Your task to perform on an android device: Search for pizza restaurants on Maps Image 0: 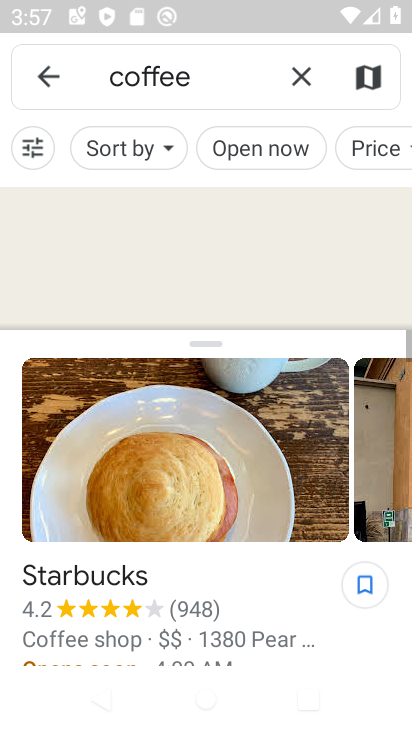
Step 0: press home button
Your task to perform on an android device: Search for pizza restaurants on Maps Image 1: 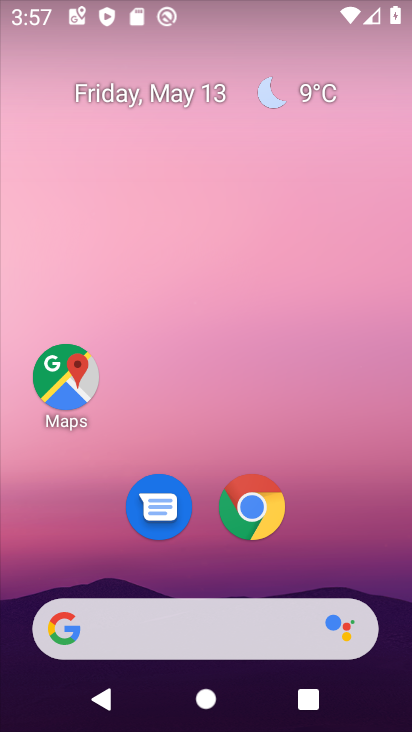
Step 1: click (57, 367)
Your task to perform on an android device: Search for pizza restaurants on Maps Image 2: 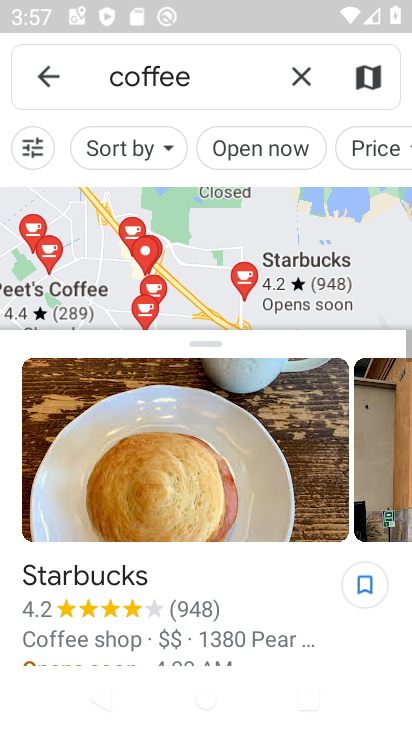
Step 2: click (307, 84)
Your task to perform on an android device: Search for pizza restaurants on Maps Image 3: 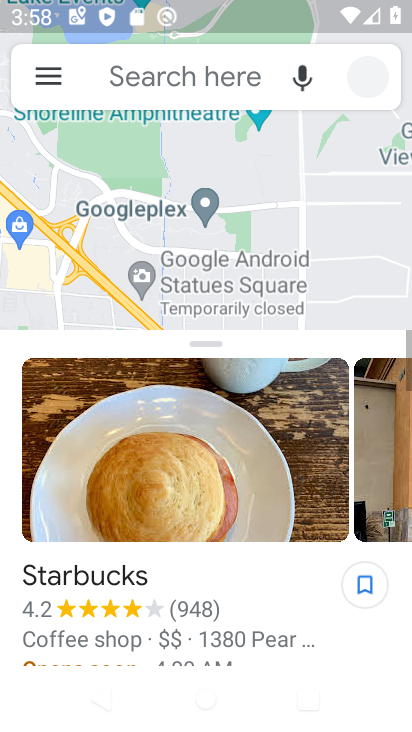
Step 3: click (216, 67)
Your task to perform on an android device: Search for pizza restaurants on Maps Image 4: 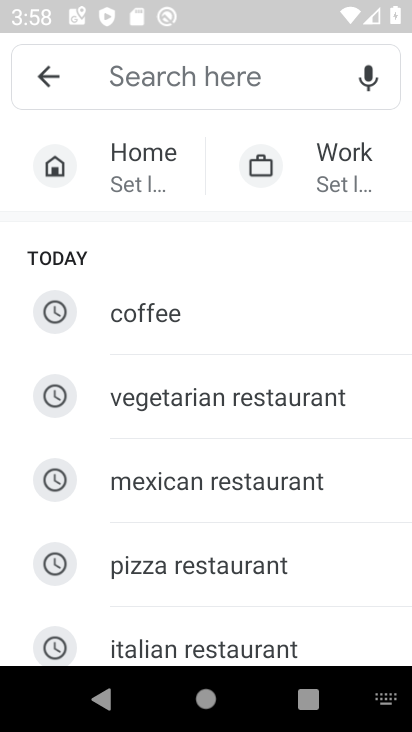
Step 4: type "pizza"
Your task to perform on an android device: Search for pizza restaurants on Maps Image 5: 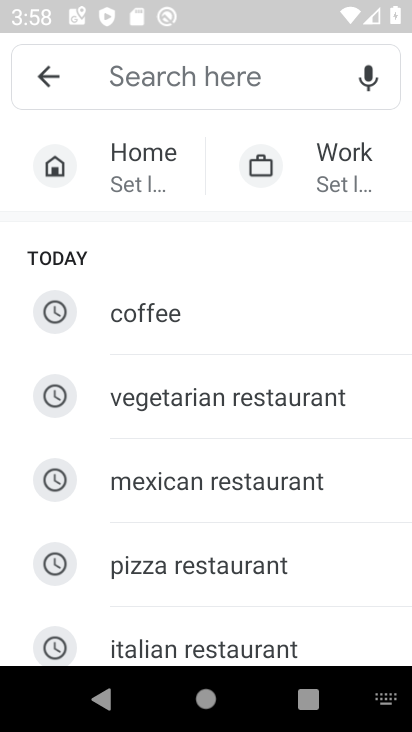
Step 5: click (234, 575)
Your task to perform on an android device: Search for pizza restaurants on Maps Image 6: 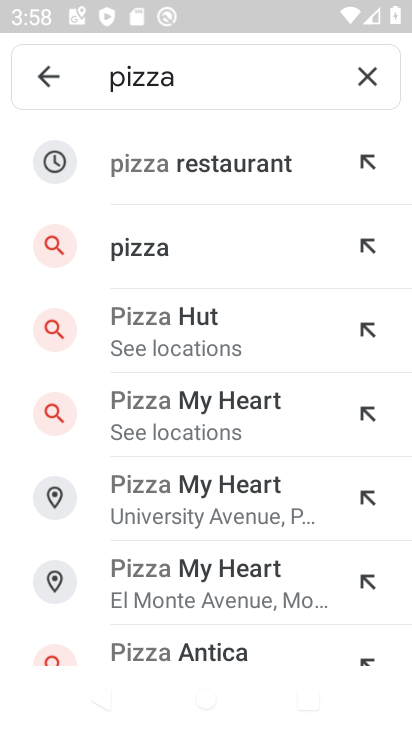
Step 6: click (206, 163)
Your task to perform on an android device: Search for pizza restaurants on Maps Image 7: 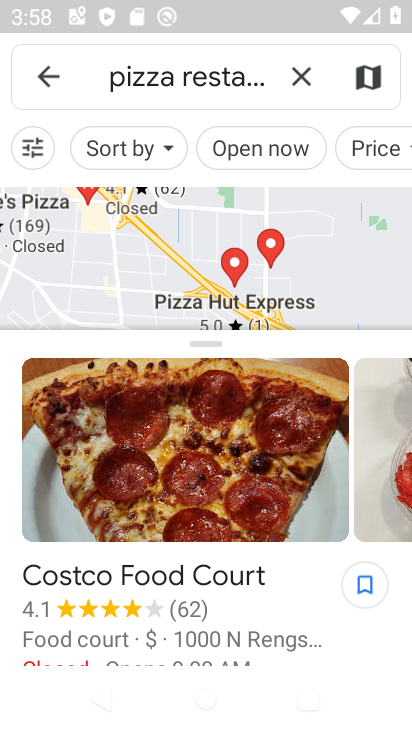
Step 7: task complete